Your task to perform on an android device: refresh tabs in the chrome app Image 0: 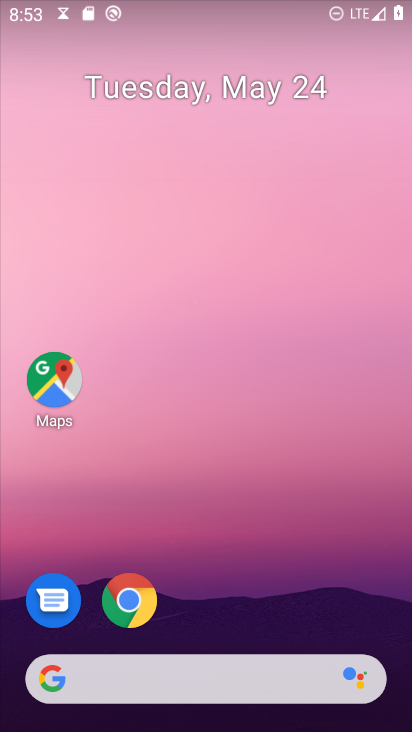
Step 0: click (128, 603)
Your task to perform on an android device: refresh tabs in the chrome app Image 1: 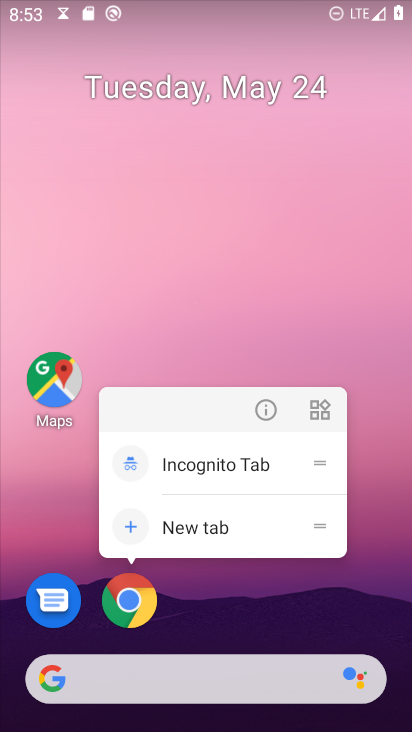
Step 1: click (130, 601)
Your task to perform on an android device: refresh tabs in the chrome app Image 2: 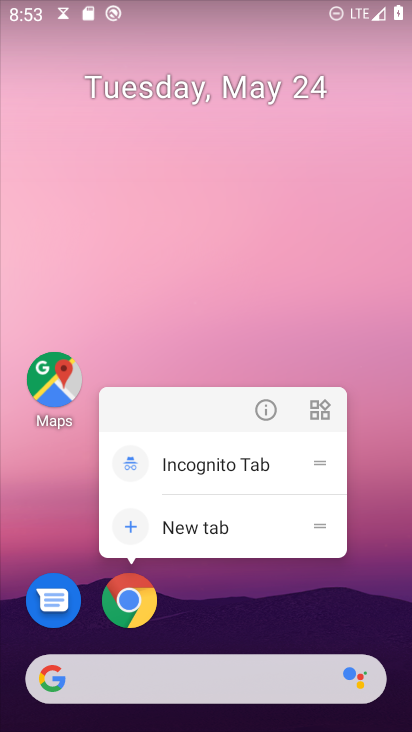
Step 2: click (126, 595)
Your task to perform on an android device: refresh tabs in the chrome app Image 3: 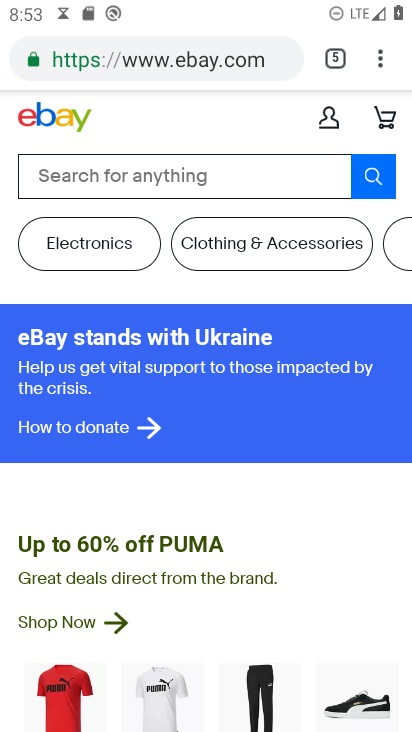
Step 3: click (379, 46)
Your task to perform on an android device: refresh tabs in the chrome app Image 4: 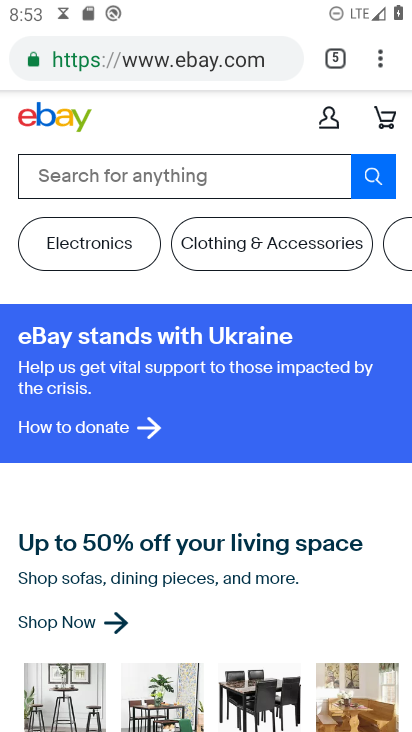
Step 4: task complete